Your task to perform on an android device: When is my next meeting? Image 0: 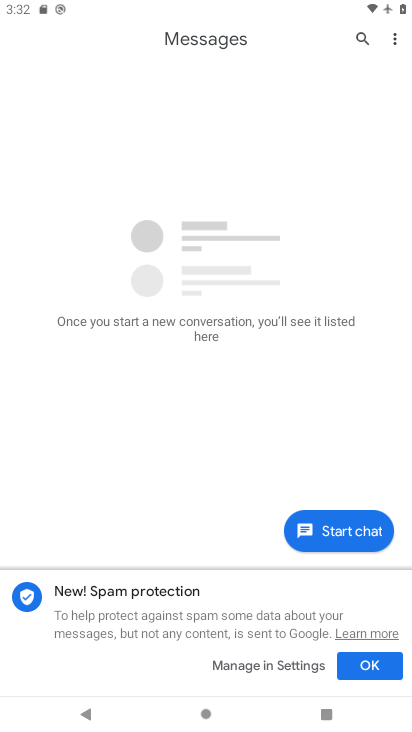
Step 0: press home button
Your task to perform on an android device: When is my next meeting? Image 1: 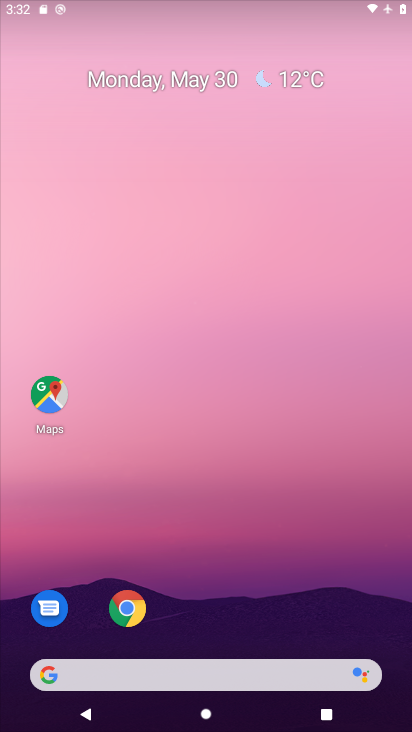
Step 1: drag from (275, 576) to (134, 3)
Your task to perform on an android device: When is my next meeting? Image 2: 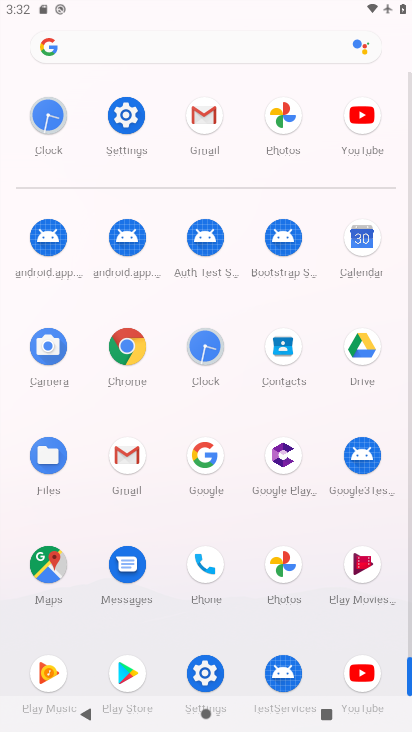
Step 2: click (363, 242)
Your task to perform on an android device: When is my next meeting? Image 3: 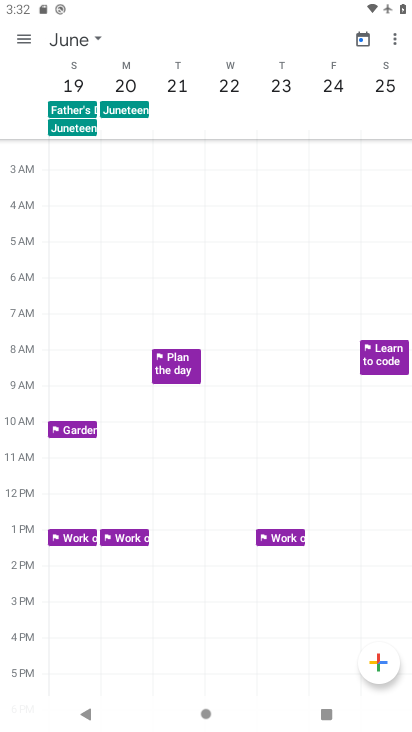
Step 3: click (61, 29)
Your task to perform on an android device: When is my next meeting? Image 4: 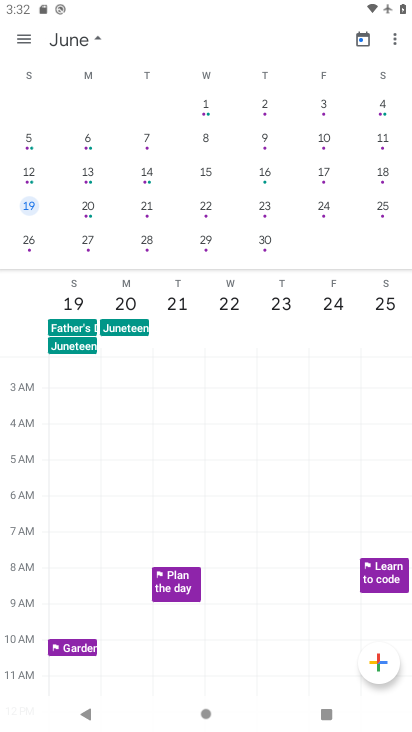
Step 4: drag from (107, 198) to (392, 225)
Your task to perform on an android device: When is my next meeting? Image 5: 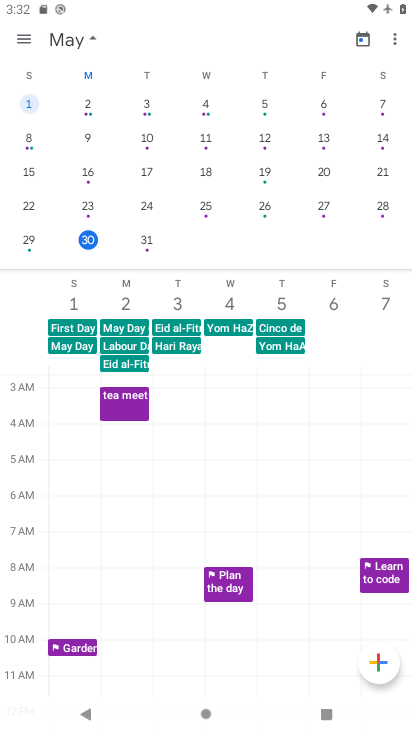
Step 5: click (26, 238)
Your task to perform on an android device: When is my next meeting? Image 6: 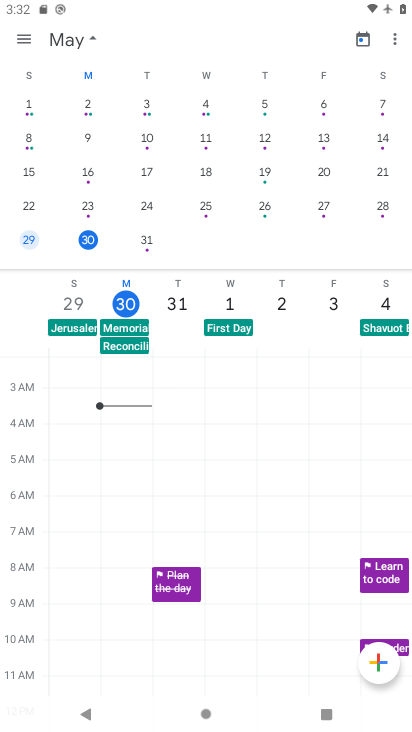
Step 6: task complete